Your task to perform on an android device: Open Yahoo.com Image 0: 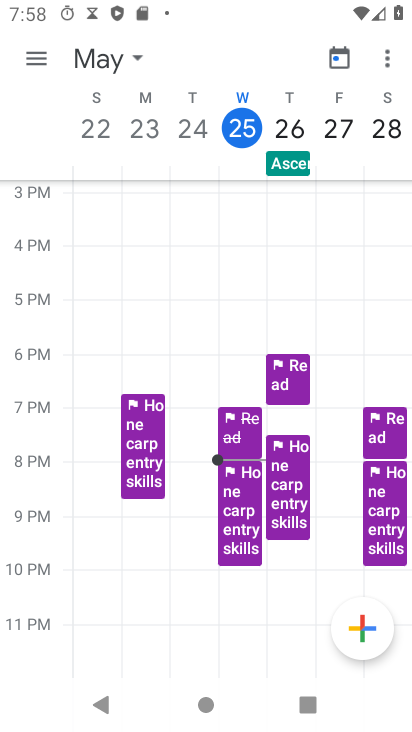
Step 0: press home button
Your task to perform on an android device: Open Yahoo.com Image 1: 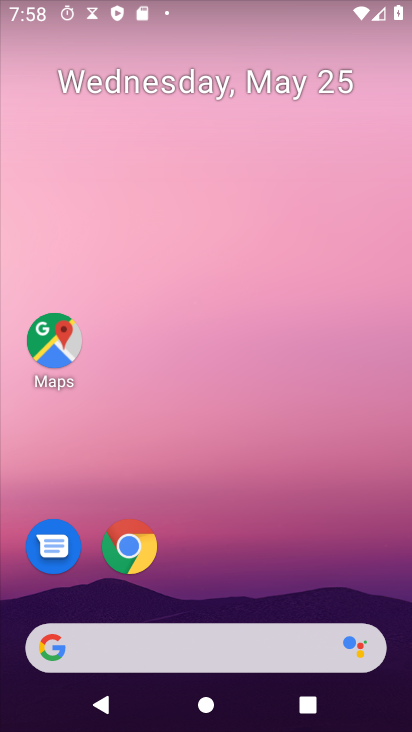
Step 1: click (136, 544)
Your task to perform on an android device: Open Yahoo.com Image 2: 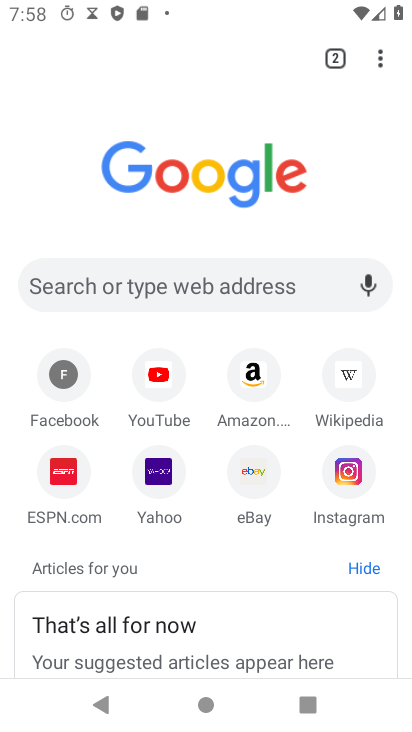
Step 2: click (157, 504)
Your task to perform on an android device: Open Yahoo.com Image 3: 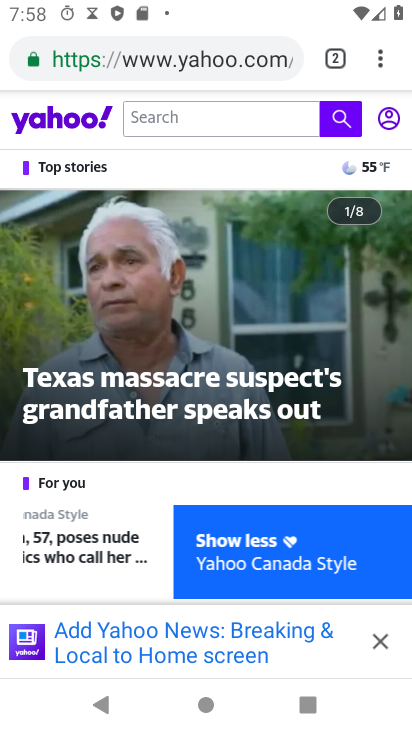
Step 3: task complete